Your task to perform on an android device: Open Chrome and go to settings Image 0: 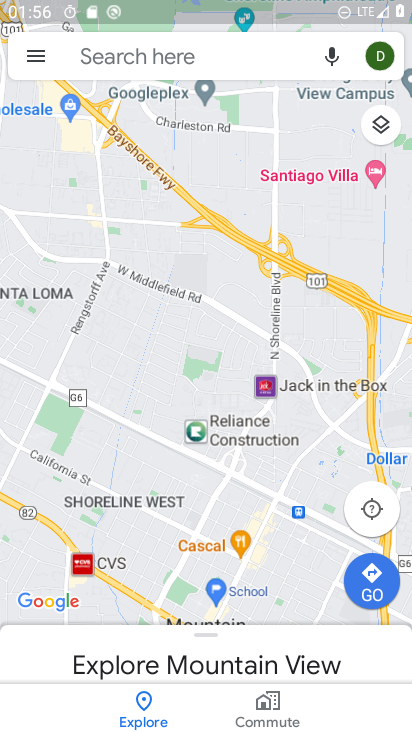
Step 0: press home button
Your task to perform on an android device: Open Chrome and go to settings Image 1: 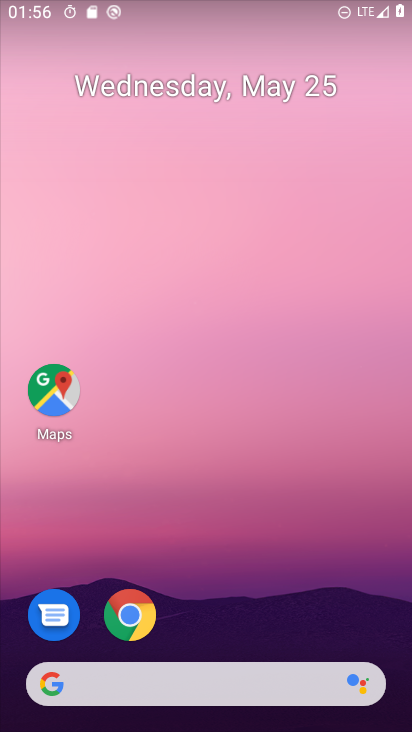
Step 1: drag from (230, 715) to (349, 84)
Your task to perform on an android device: Open Chrome and go to settings Image 2: 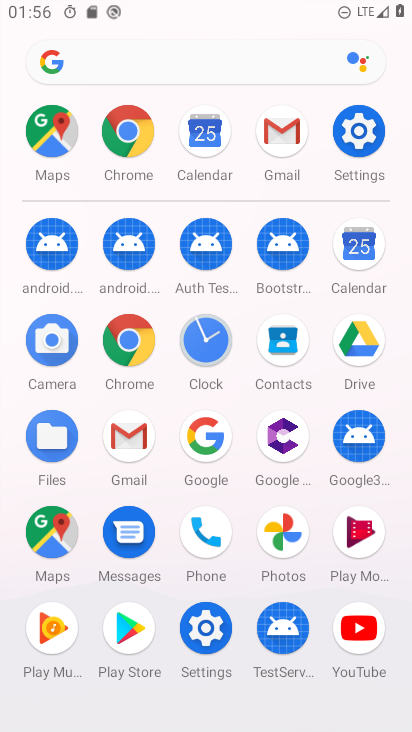
Step 2: click (116, 131)
Your task to perform on an android device: Open Chrome and go to settings Image 3: 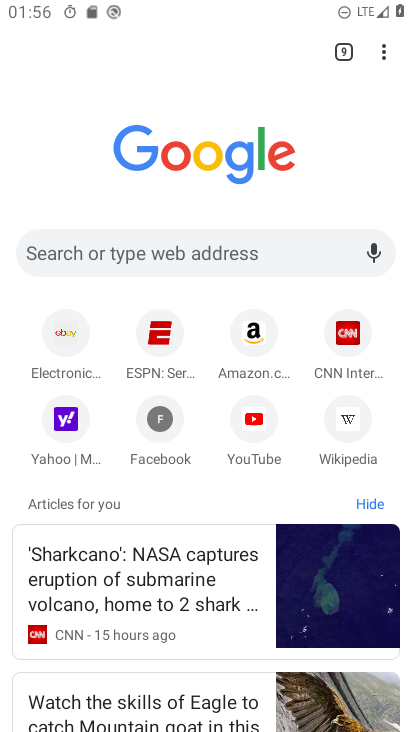
Step 3: click (383, 54)
Your task to perform on an android device: Open Chrome and go to settings Image 4: 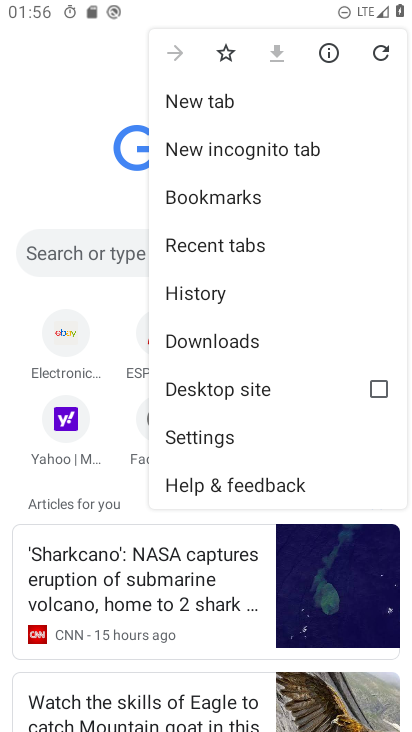
Step 4: click (214, 427)
Your task to perform on an android device: Open Chrome and go to settings Image 5: 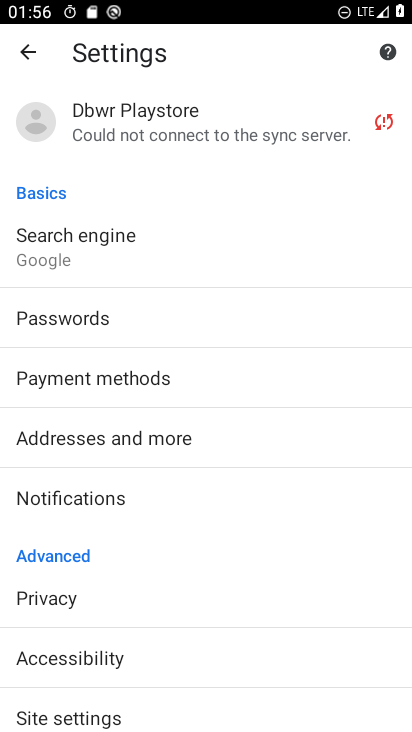
Step 5: task complete